Your task to perform on an android device: empty trash in google photos Image 0: 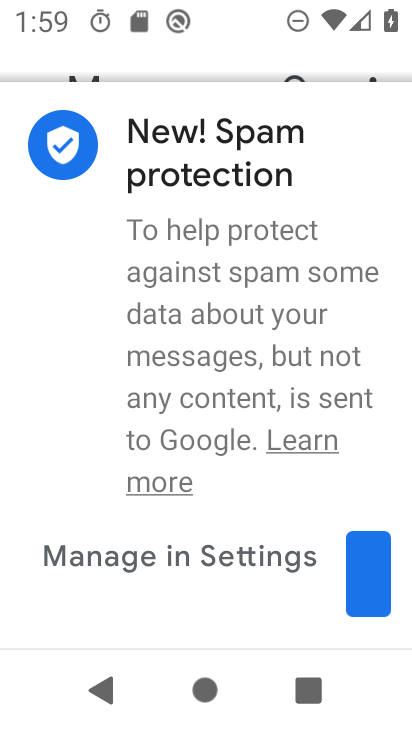
Step 0: press home button
Your task to perform on an android device: empty trash in google photos Image 1: 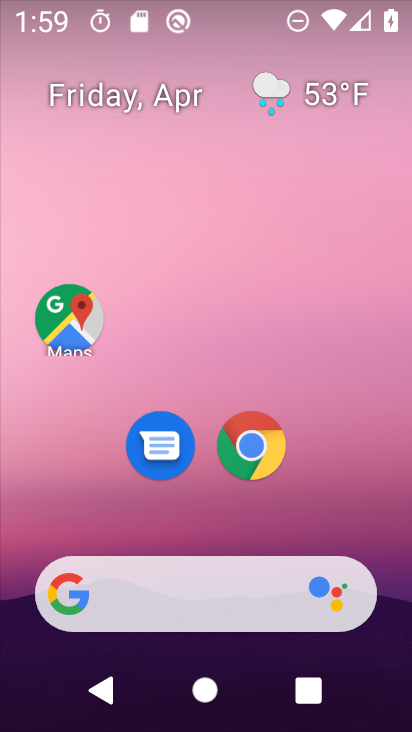
Step 1: drag from (347, 490) to (351, 96)
Your task to perform on an android device: empty trash in google photos Image 2: 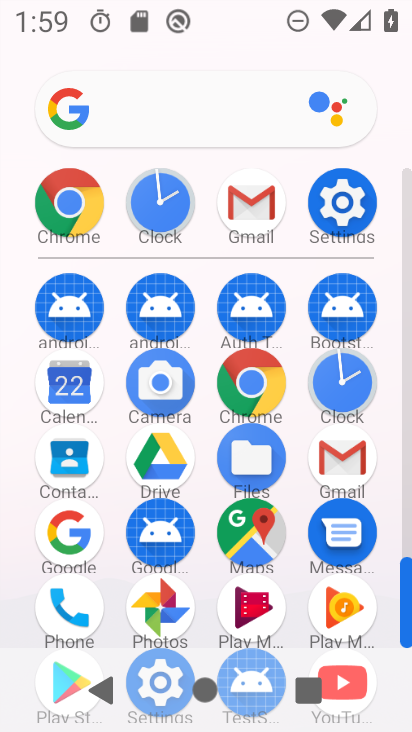
Step 2: drag from (390, 528) to (389, 300)
Your task to perform on an android device: empty trash in google photos Image 3: 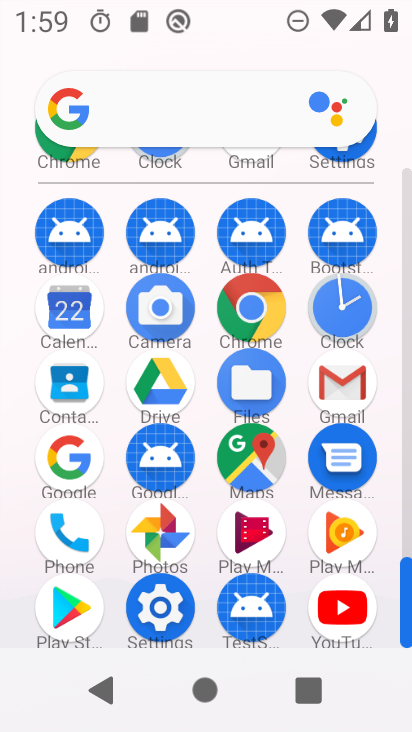
Step 3: click (171, 536)
Your task to perform on an android device: empty trash in google photos Image 4: 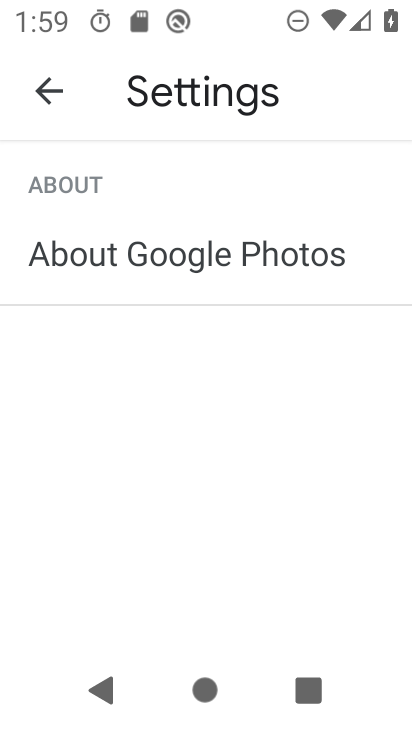
Step 4: click (65, 98)
Your task to perform on an android device: empty trash in google photos Image 5: 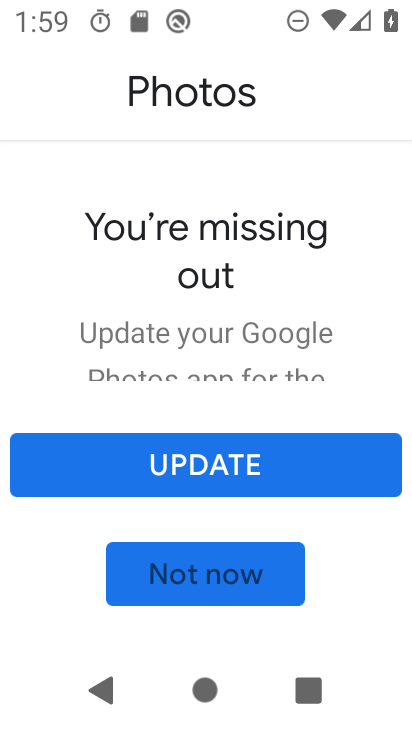
Step 5: click (220, 457)
Your task to perform on an android device: empty trash in google photos Image 6: 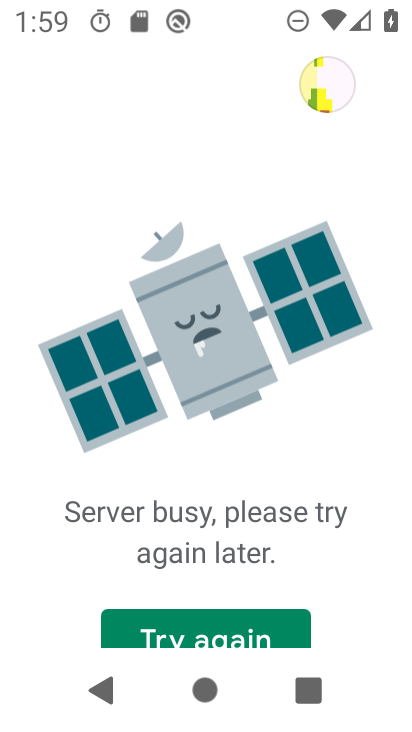
Step 6: task complete